Your task to perform on an android device: clear history in the chrome app Image 0: 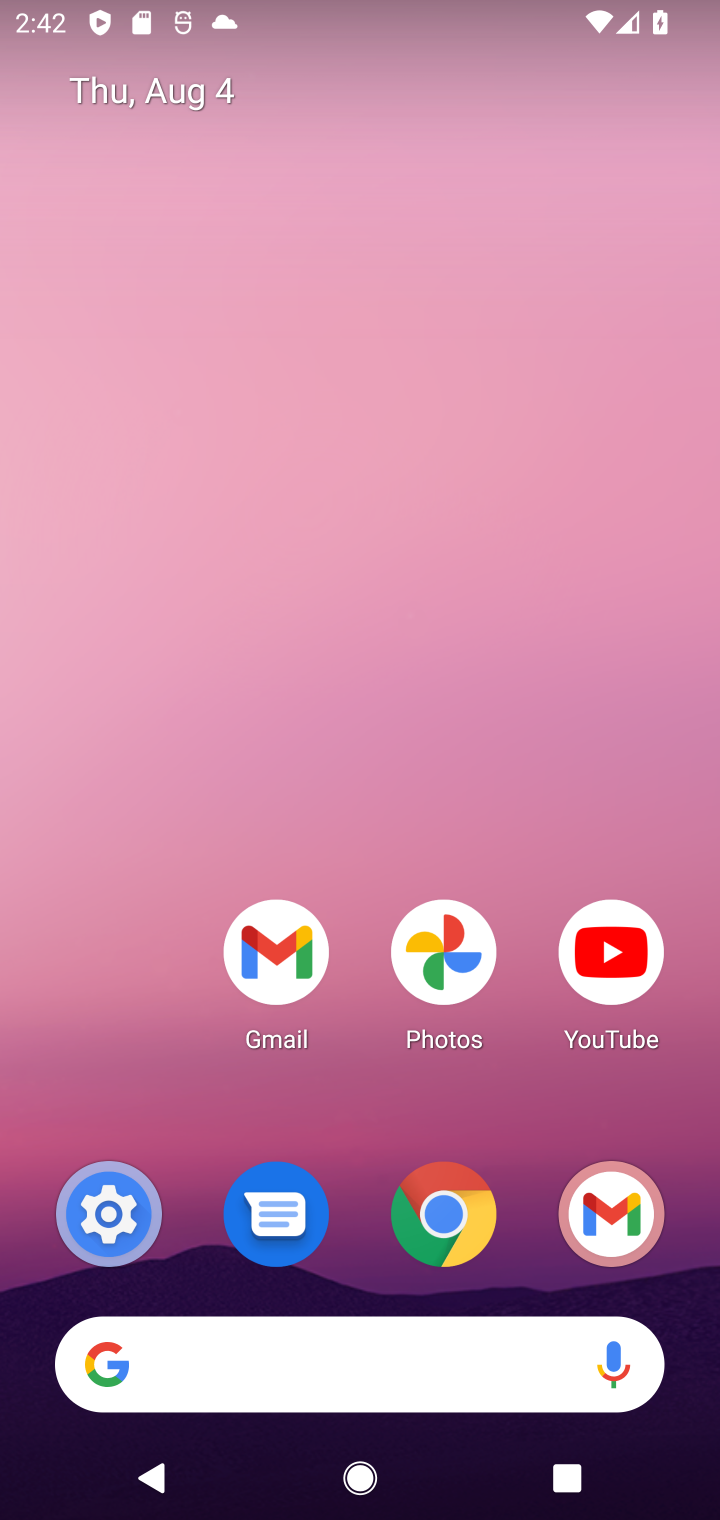
Step 0: drag from (138, 1063) to (37, 44)
Your task to perform on an android device: clear history in the chrome app Image 1: 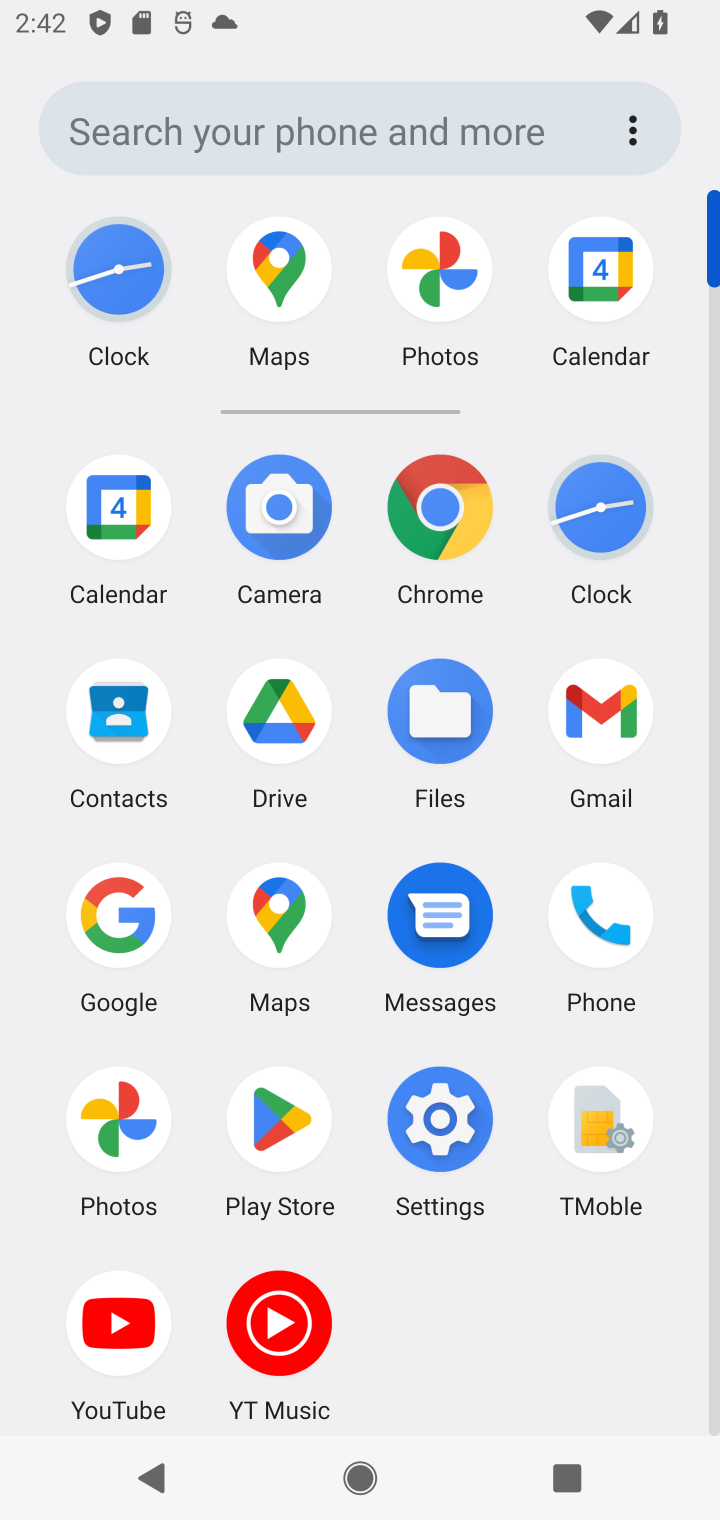
Step 1: click (459, 503)
Your task to perform on an android device: clear history in the chrome app Image 2: 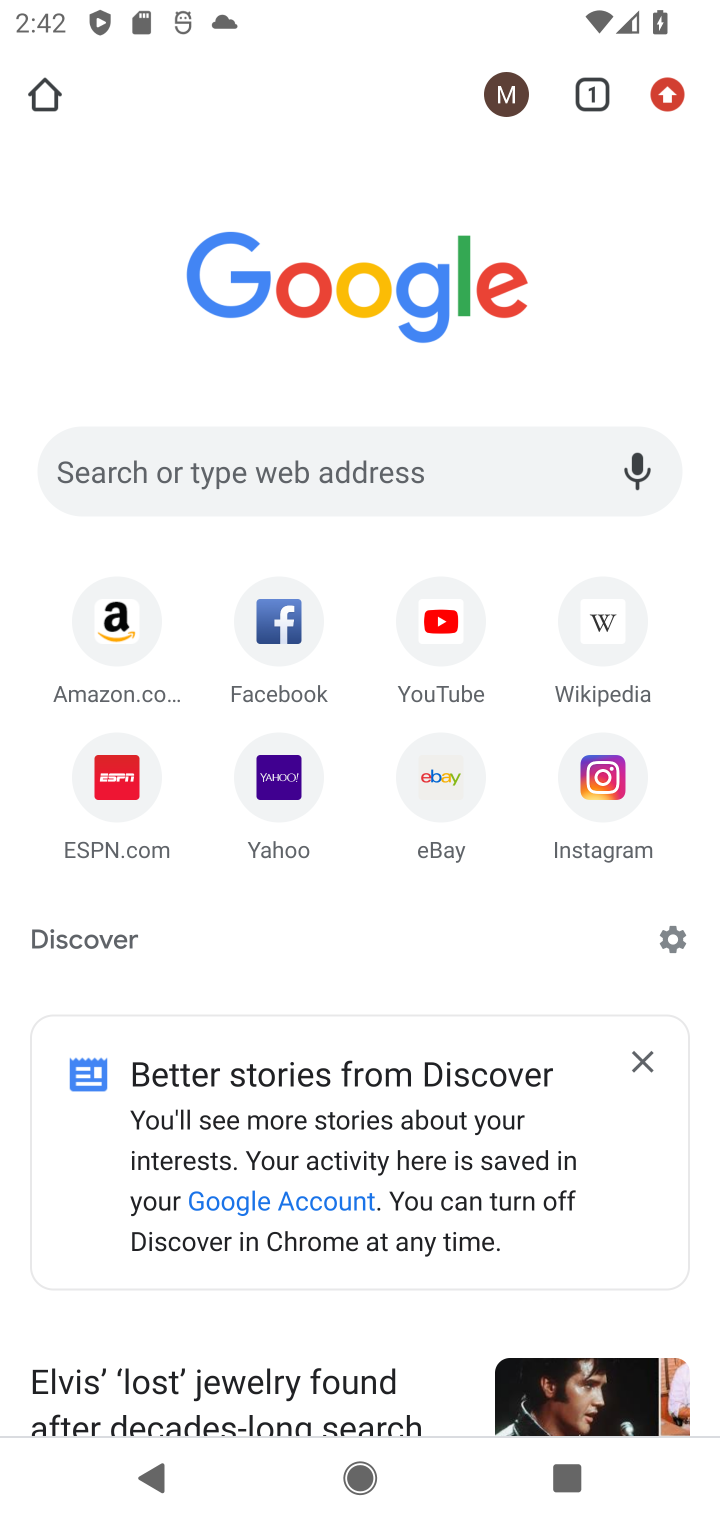
Step 2: click (675, 91)
Your task to perform on an android device: clear history in the chrome app Image 3: 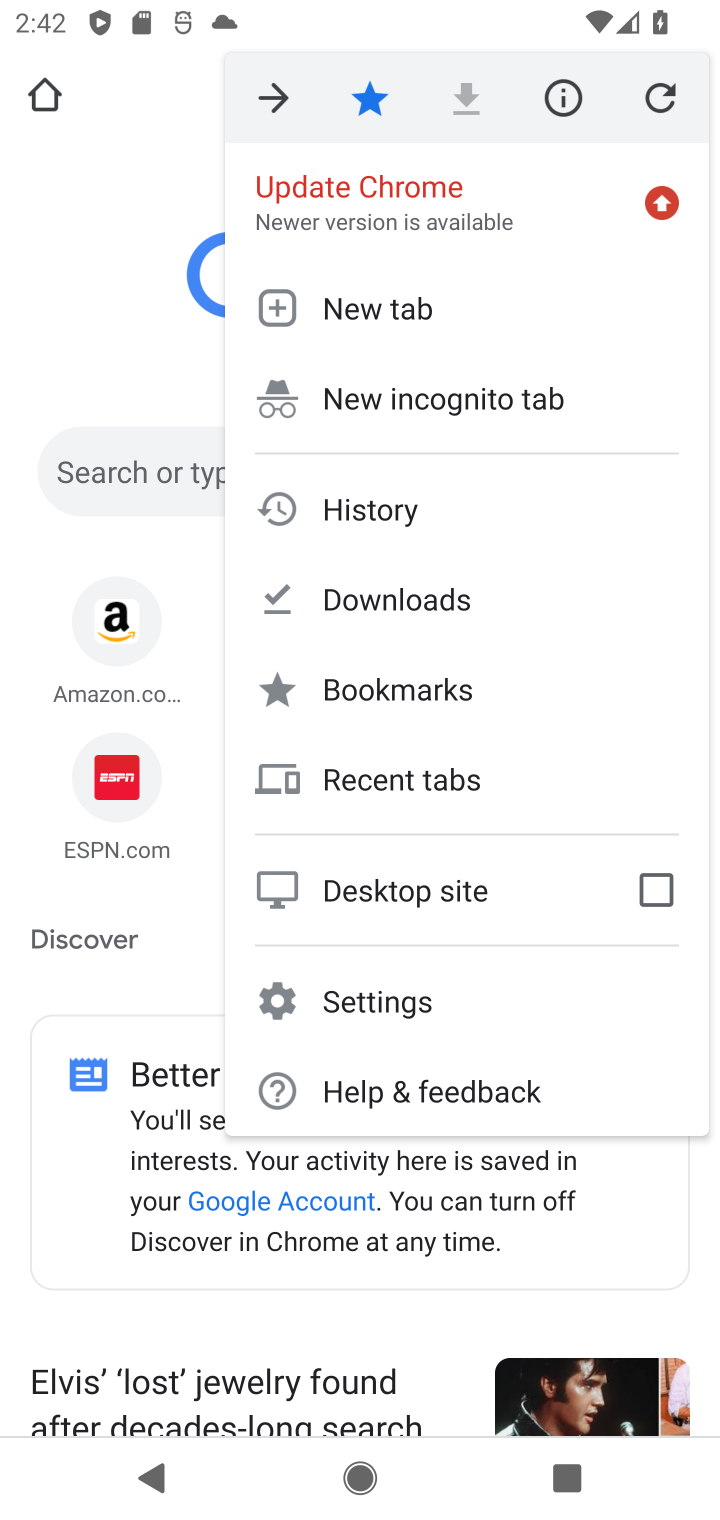
Step 3: click (400, 514)
Your task to perform on an android device: clear history in the chrome app Image 4: 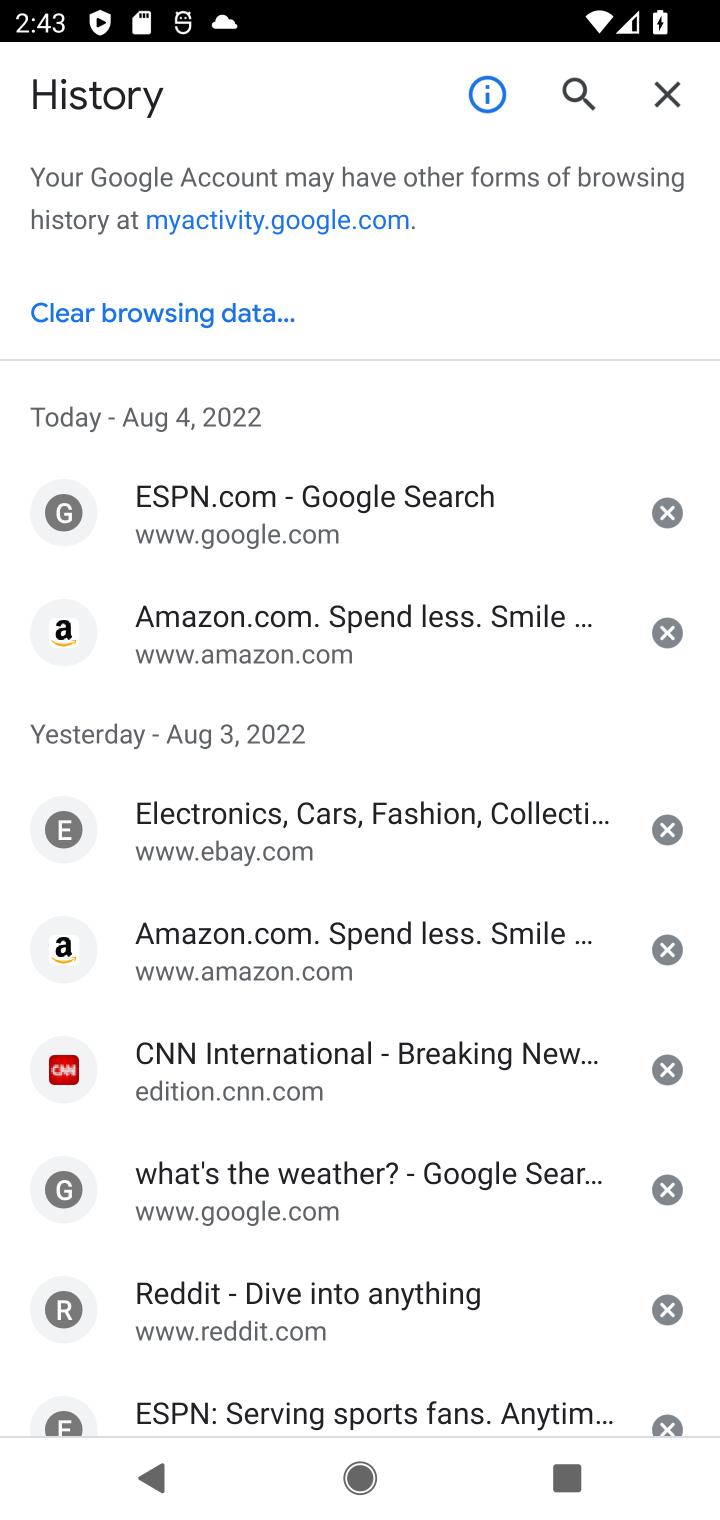
Step 4: click (216, 322)
Your task to perform on an android device: clear history in the chrome app Image 5: 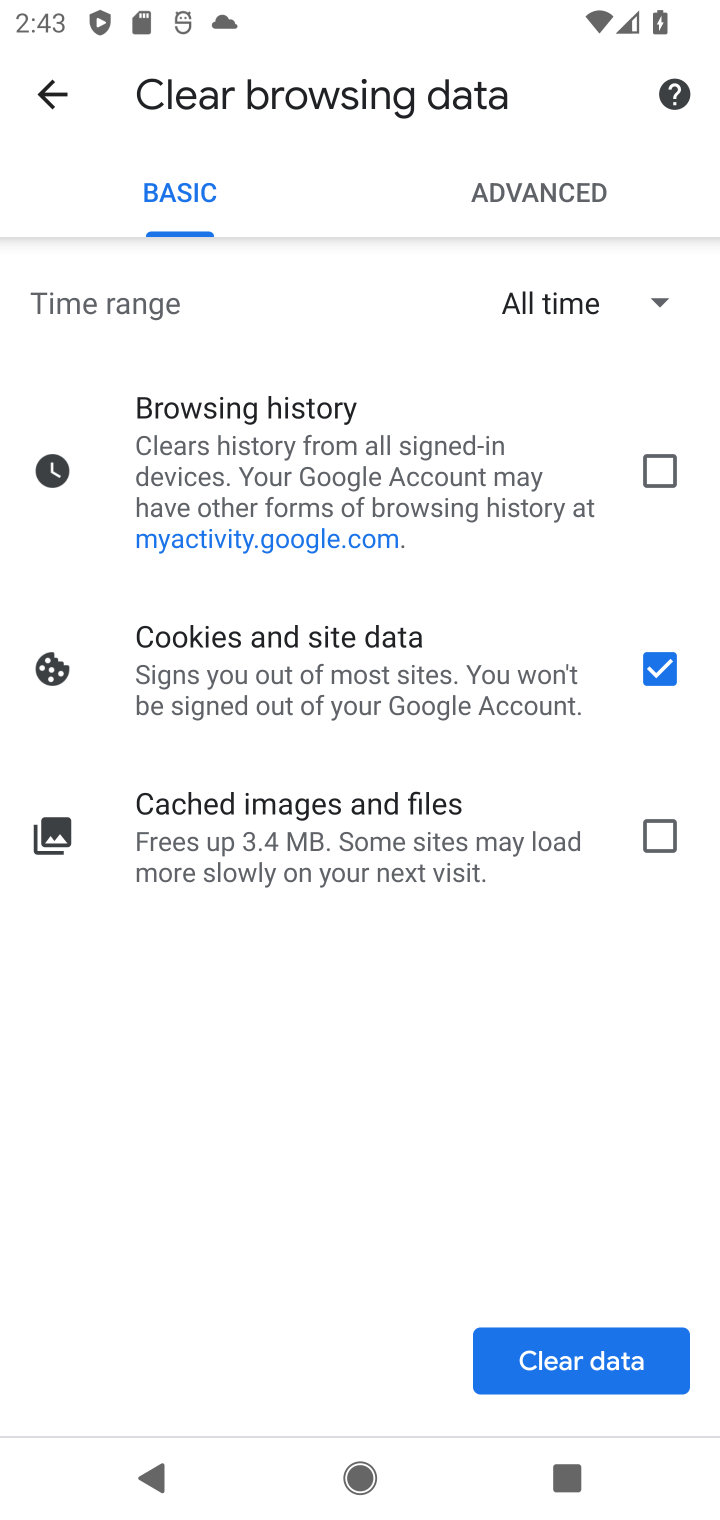
Step 5: click (656, 479)
Your task to perform on an android device: clear history in the chrome app Image 6: 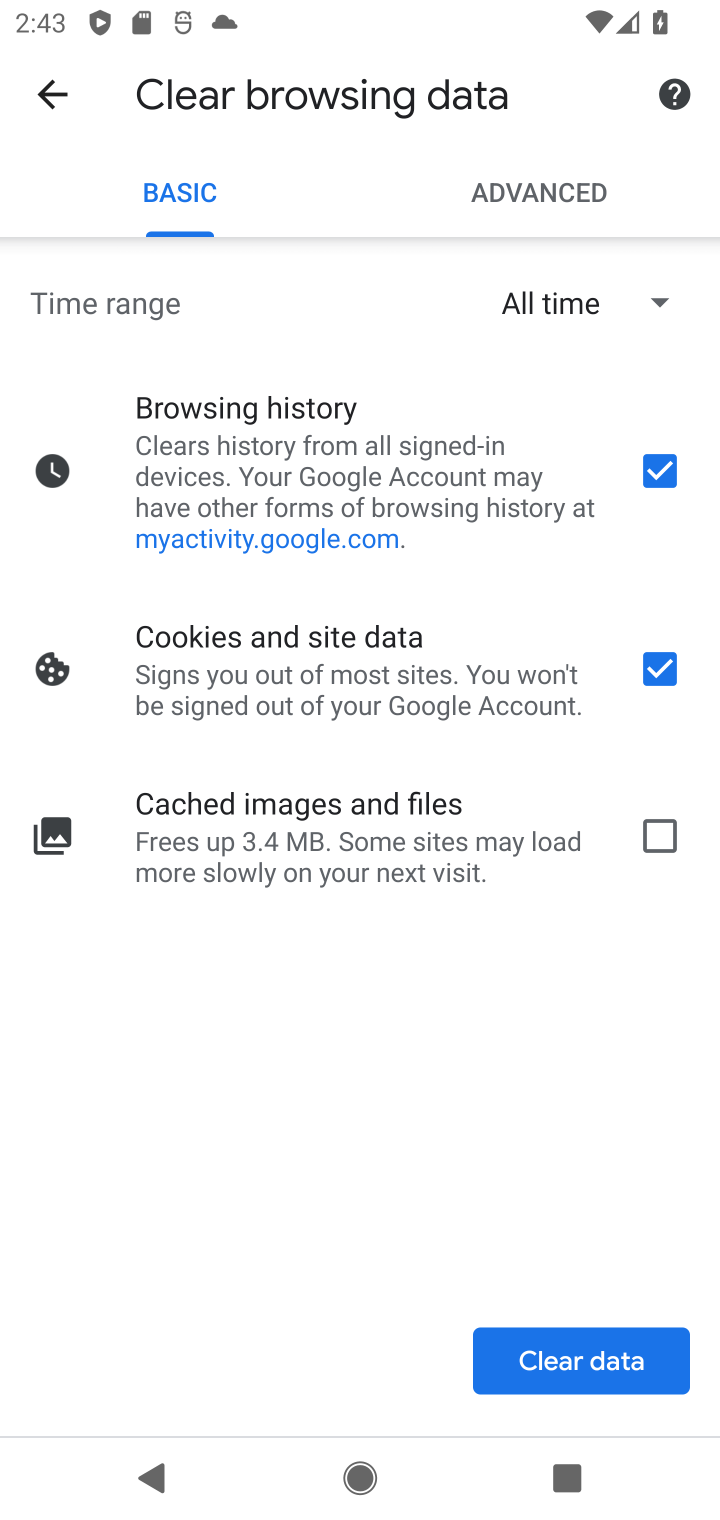
Step 6: click (577, 1366)
Your task to perform on an android device: clear history in the chrome app Image 7: 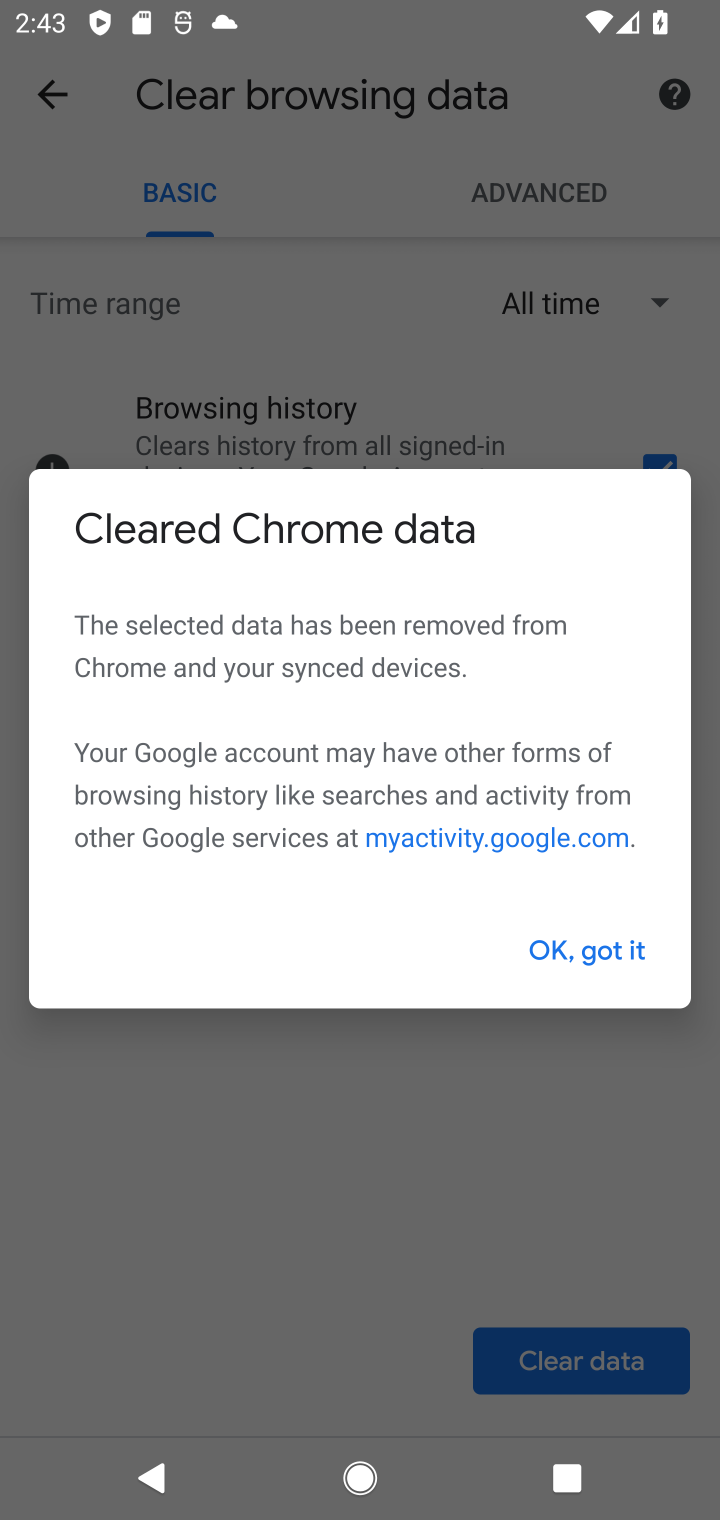
Step 7: click (603, 933)
Your task to perform on an android device: clear history in the chrome app Image 8: 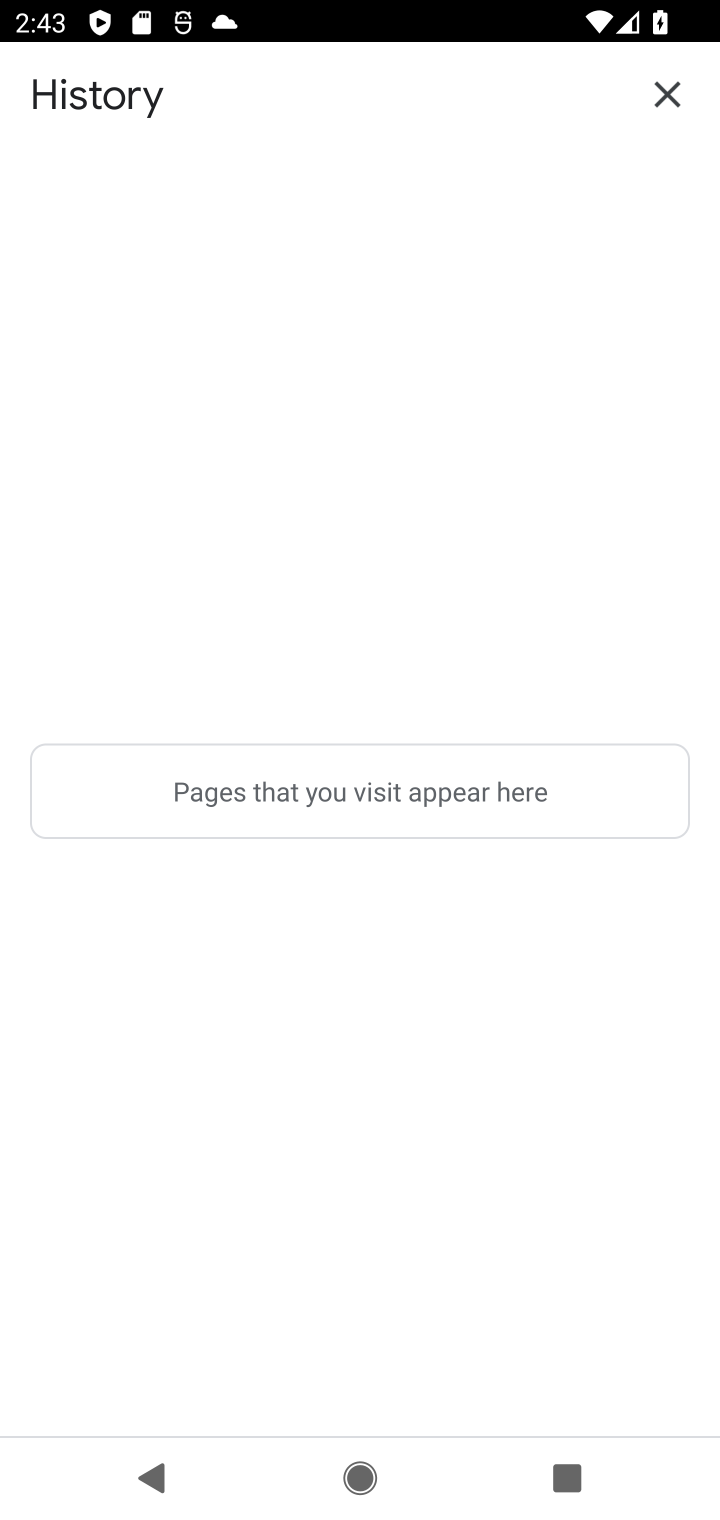
Step 8: task complete